Your task to perform on an android device: Search for "dell alienware" on walmart.com, select the first entry, add it to the cart, then select checkout. Image 0: 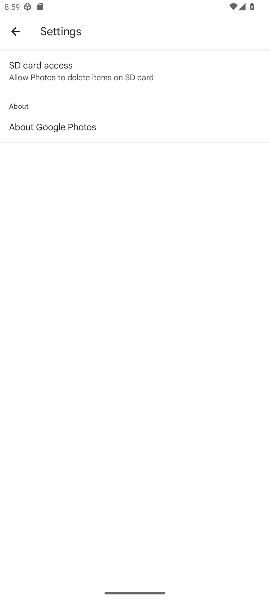
Step 0: press home button
Your task to perform on an android device: Search for "dell alienware" on walmart.com, select the first entry, add it to the cart, then select checkout. Image 1: 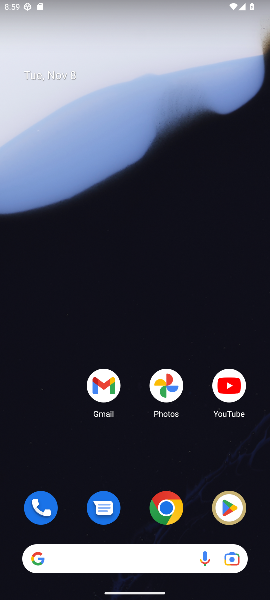
Step 1: click (166, 513)
Your task to perform on an android device: Search for "dell alienware" on walmart.com, select the first entry, add it to the cart, then select checkout. Image 2: 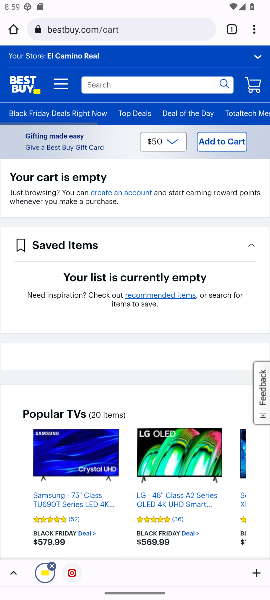
Step 2: click (55, 29)
Your task to perform on an android device: Search for "dell alienware" on walmart.com, select the first entry, add it to the cart, then select checkout. Image 3: 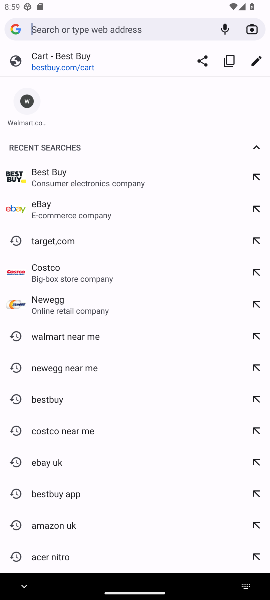
Step 3: type "walmart"
Your task to perform on an android device: Search for "dell alienware" on walmart.com, select the first entry, add it to the cart, then select checkout. Image 4: 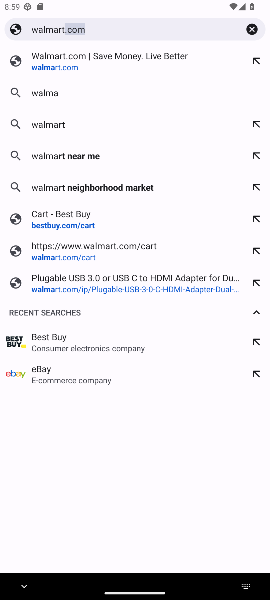
Step 4: type ""
Your task to perform on an android device: Search for "dell alienware" on walmart.com, select the first entry, add it to the cart, then select checkout. Image 5: 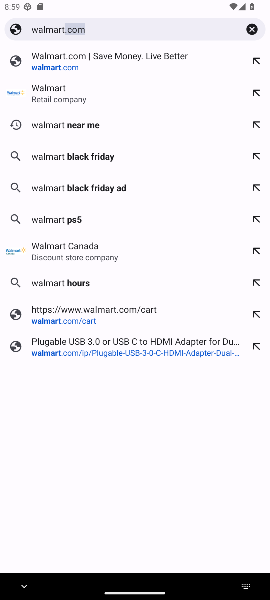
Step 5: click (48, 91)
Your task to perform on an android device: Search for "dell alienware" on walmart.com, select the first entry, add it to the cart, then select checkout. Image 6: 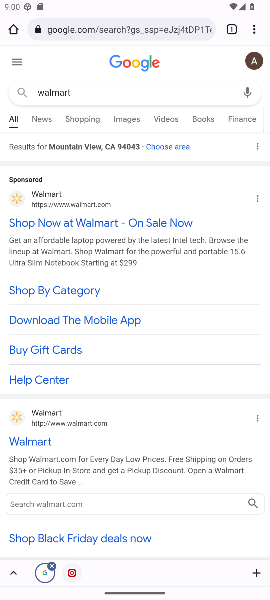
Step 6: click (35, 440)
Your task to perform on an android device: Search for "dell alienware" on walmart.com, select the first entry, add it to the cart, then select checkout. Image 7: 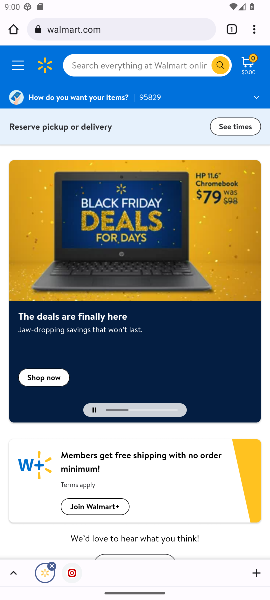
Step 7: click (162, 59)
Your task to perform on an android device: Search for "dell alienware" on walmart.com, select the first entry, add it to the cart, then select checkout. Image 8: 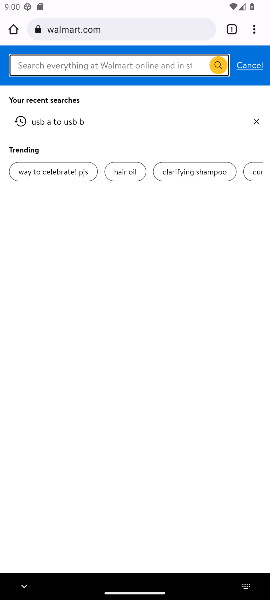
Step 8: type "dell alienware "
Your task to perform on an android device: Search for "dell alienware" on walmart.com, select the first entry, add it to the cart, then select checkout. Image 9: 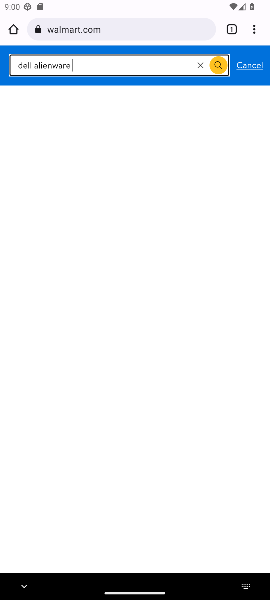
Step 9: type ""
Your task to perform on an android device: Search for "dell alienware" on walmart.com, select the first entry, add it to the cart, then select checkout. Image 10: 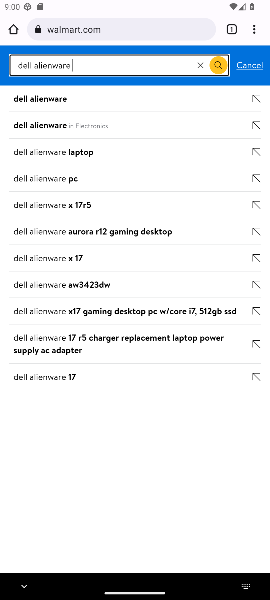
Step 10: click (38, 99)
Your task to perform on an android device: Search for "dell alienware" on walmart.com, select the first entry, add it to the cart, then select checkout. Image 11: 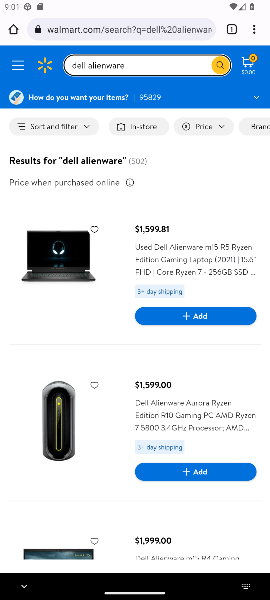
Step 11: click (213, 319)
Your task to perform on an android device: Search for "dell alienware" on walmart.com, select the first entry, add it to the cart, then select checkout. Image 12: 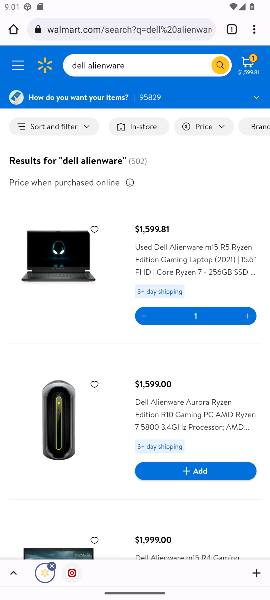
Step 12: click (253, 69)
Your task to perform on an android device: Search for "dell alienware" on walmart.com, select the first entry, add it to the cart, then select checkout. Image 13: 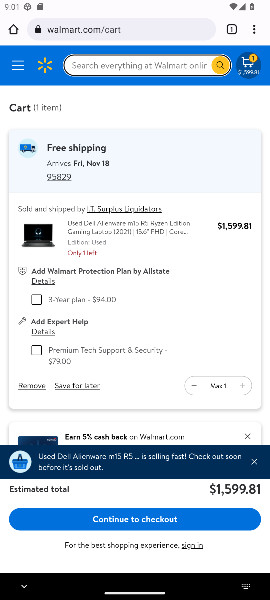
Step 13: click (143, 521)
Your task to perform on an android device: Search for "dell alienware" on walmart.com, select the first entry, add it to the cart, then select checkout. Image 14: 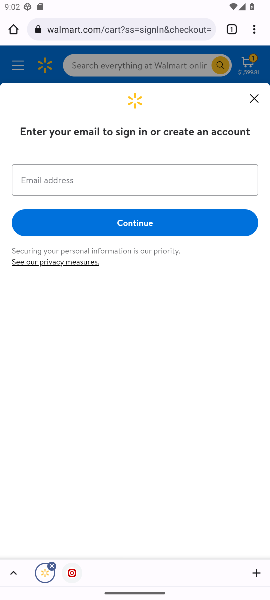
Step 14: task complete